Your task to perform on an android device: open chrome privacy settings Image 0: 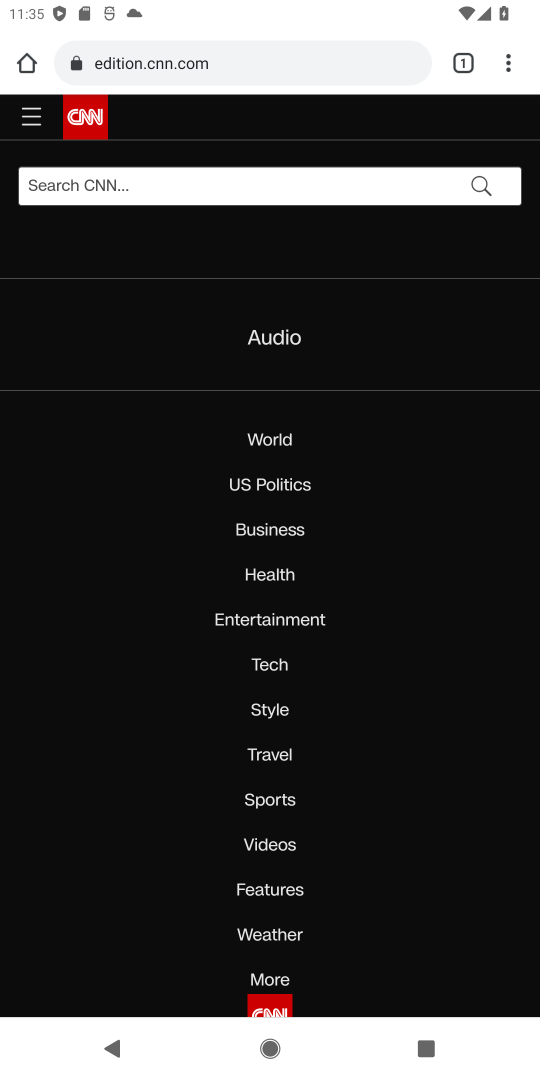
Step 0: press home button
Your task to perform on an android device: open chrome privacy settings Image 1: 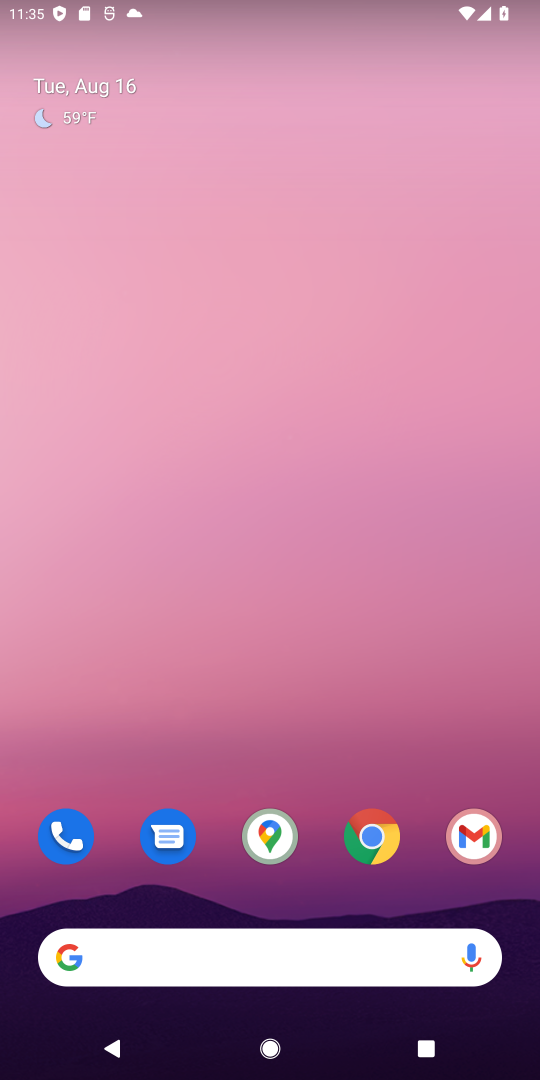
Step 1: click (371, 836)
Your task to perform on an android device: open chrome privacy settings Image 2: 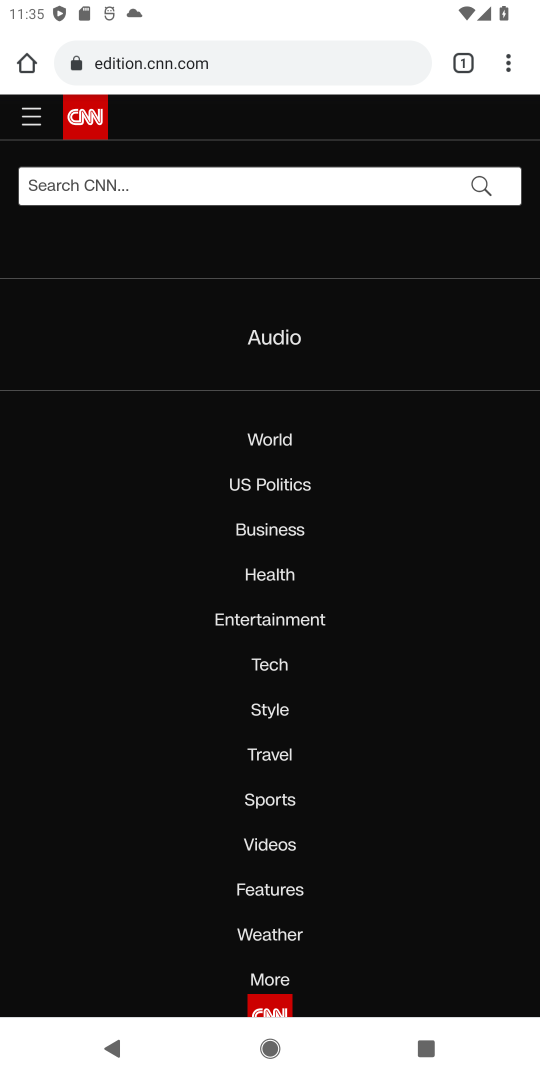
Step 2: click (524, 68)
Your task to perform on an android device: open chrome privacy settings Image 3: 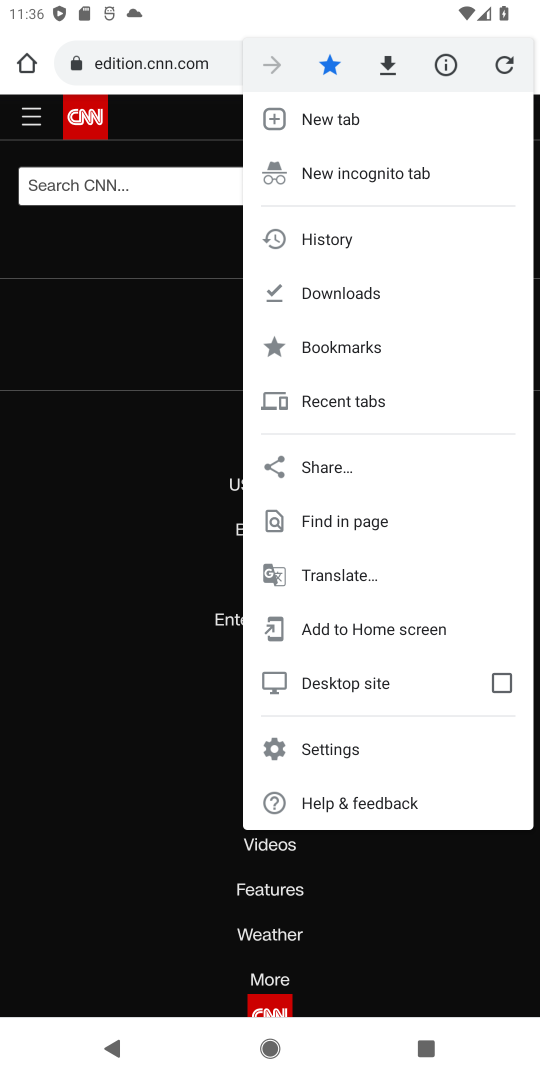
Step 3: click (315, 748)
Your task to perform on an android device: open chrome privacy settings Image 4: 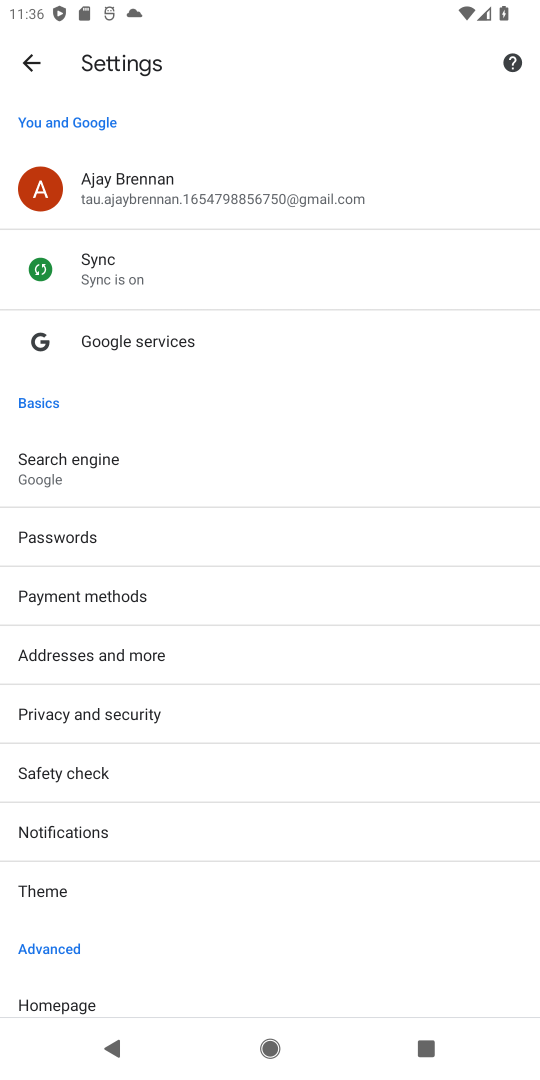
Step 4: click (152, 708)
Your task to perform on an android device: open chrome privacy settings Image 5: 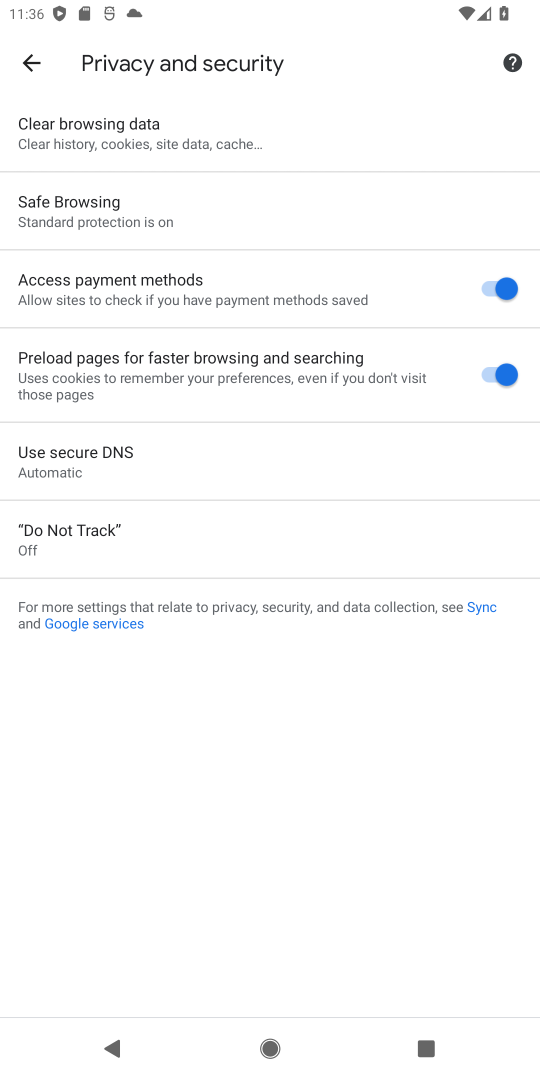
Step 5: task complete